Your task to perform on an android device: Add "razer blade" to the cart on target, then select checkout. Image 0: 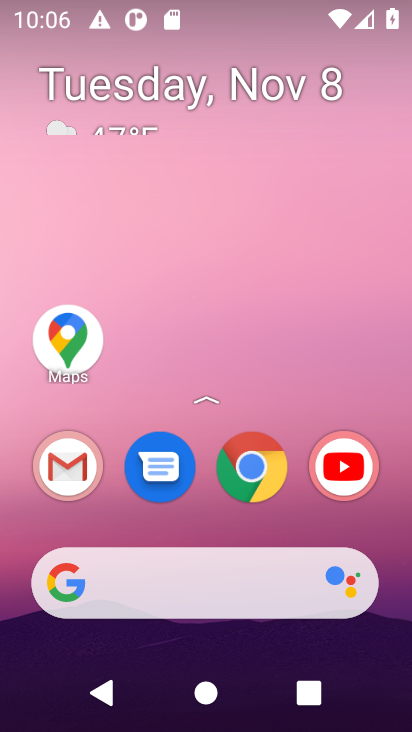
Step 0: click (190, 575)
Your task to perform on an android device: Add "razer blade" to the cart on target, then select checkout. Image 1: 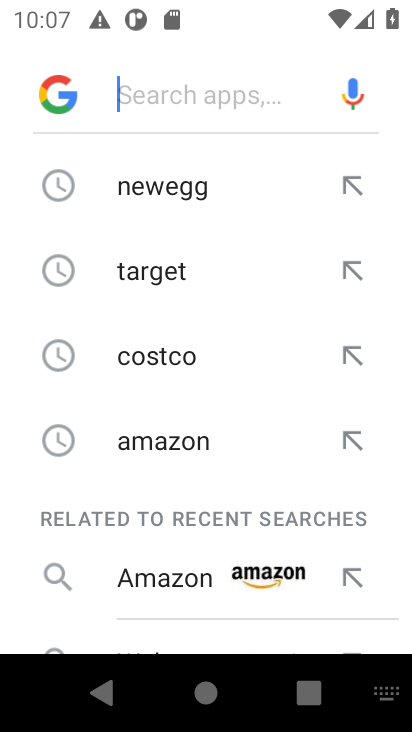
Step 1: click (163, 293)
Your task to perform on an android device: Add "razer blade" to the cart on target, then select checkout. Image 2: 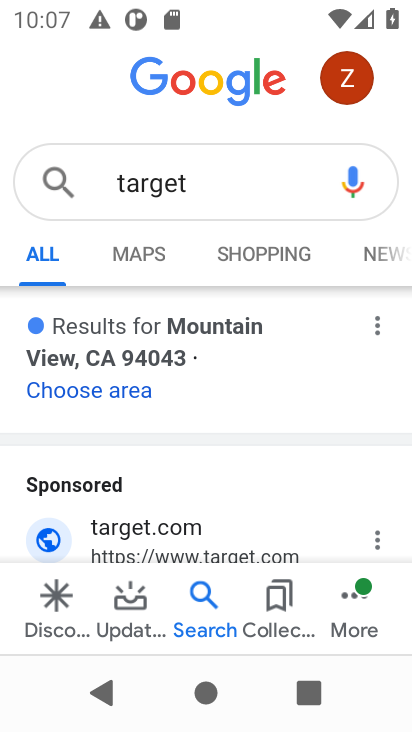
Step 2: click (124, 532)
Your task to perform on an android device: Add "razer blade" to the cart on target, then select checkout. Image 3: 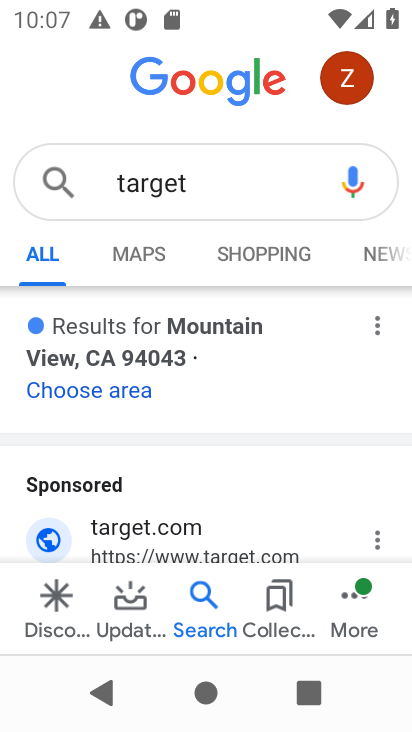
Step 3: task complete